Your task to perform on an android device: move a message to another label in the gmail app Image 0: 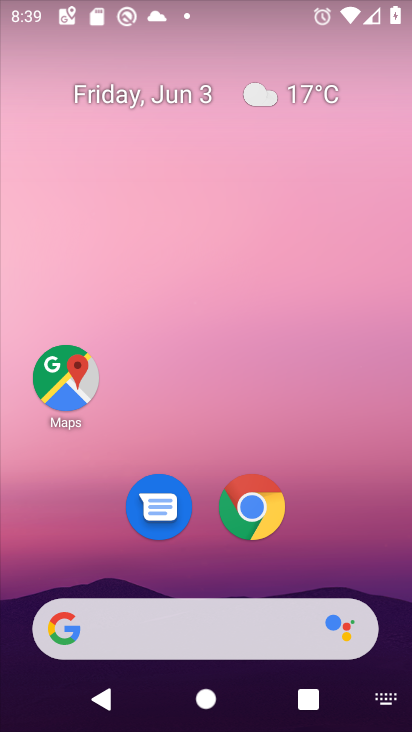
Step 0: drag from (351, 555) to (225, 44)
Your task to perform on an android device: move a message to another label in the gmail app Image 1: 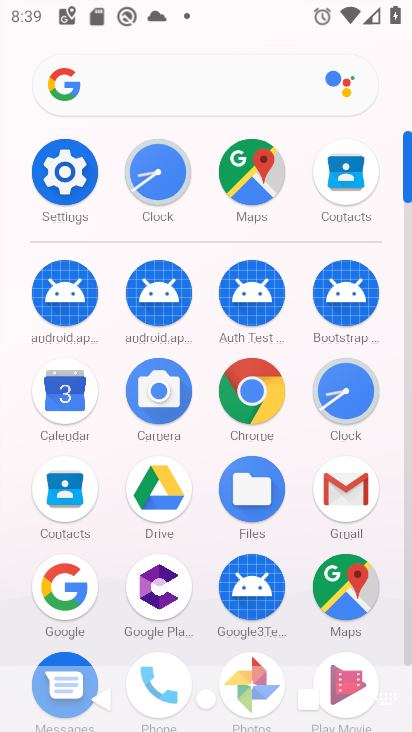
Step 1: click (345, 499)
Your task to perform on an android device: move a message to another label in the gmail app Image 2: 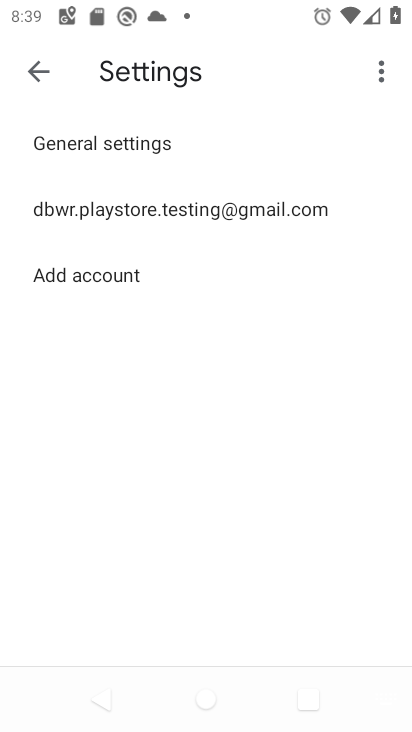
Step 2: click (33, 72)
Your task to perform on an android device: move a message to another label in the gmail app Image 3: 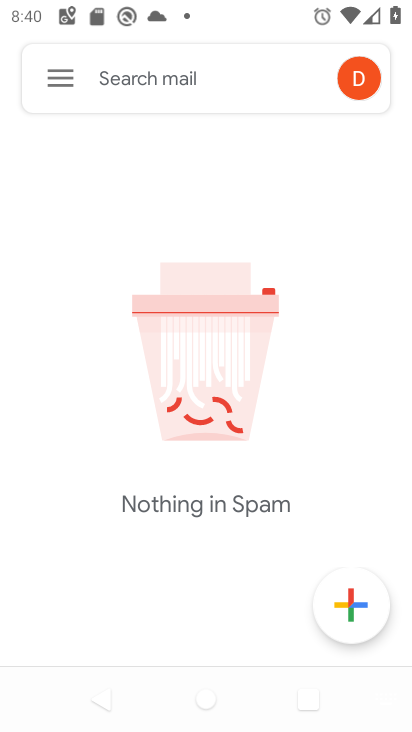
Step 3: task complete